Your task to perform on an android device: Search for hotels in Paris Image 0: 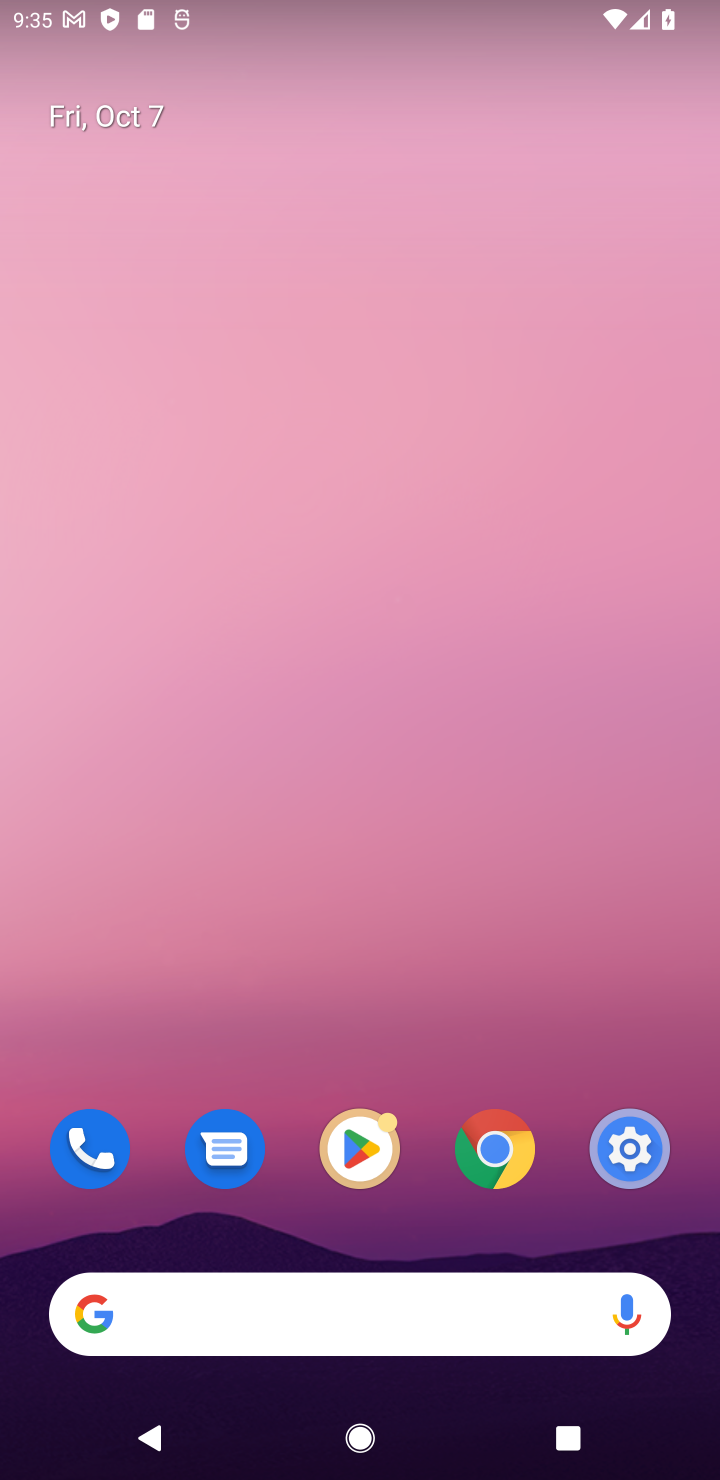
Step 0: click (387, 1349)
Your task to perform on an android device: Search for hotels in Paris Image 1: 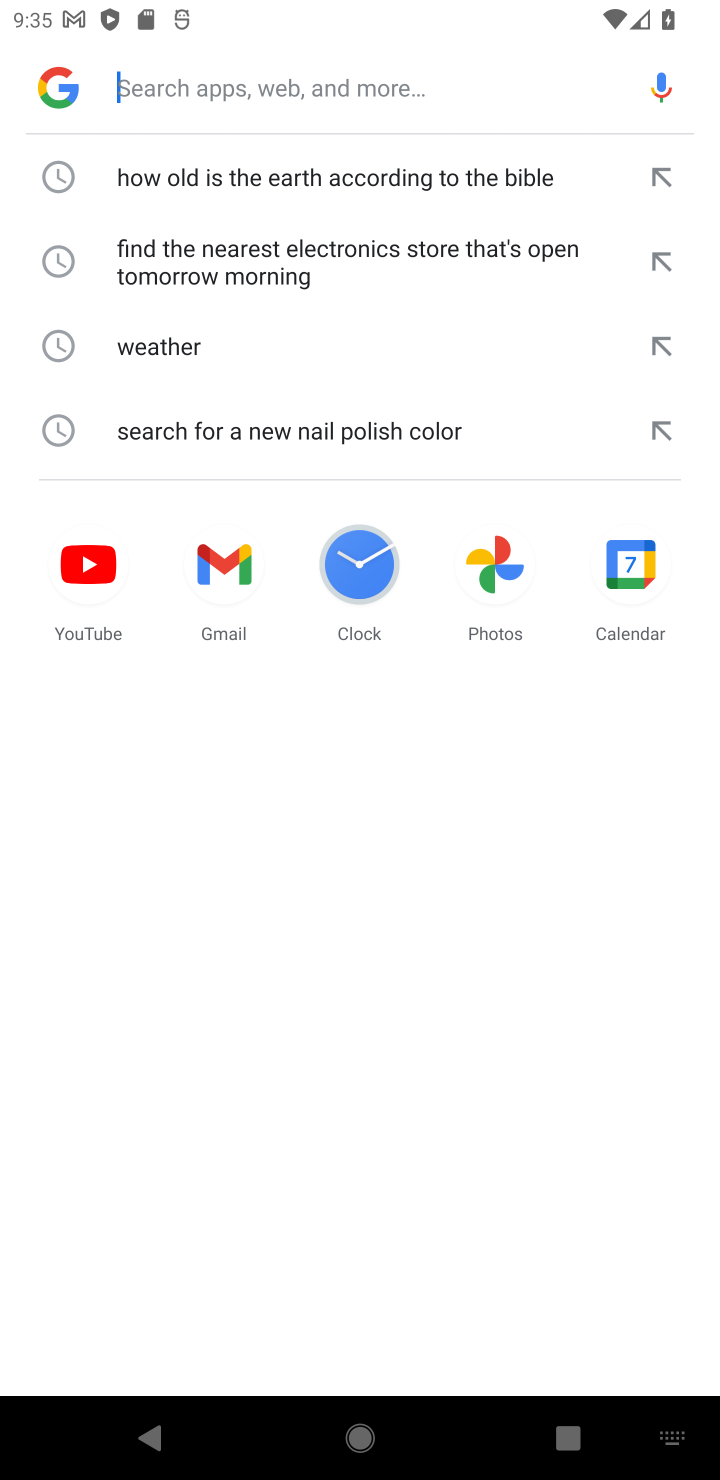
Step 1: type "Search for hotels in Paris"
Your task to perform on an android device: Search for hotels in Paris Image 2: 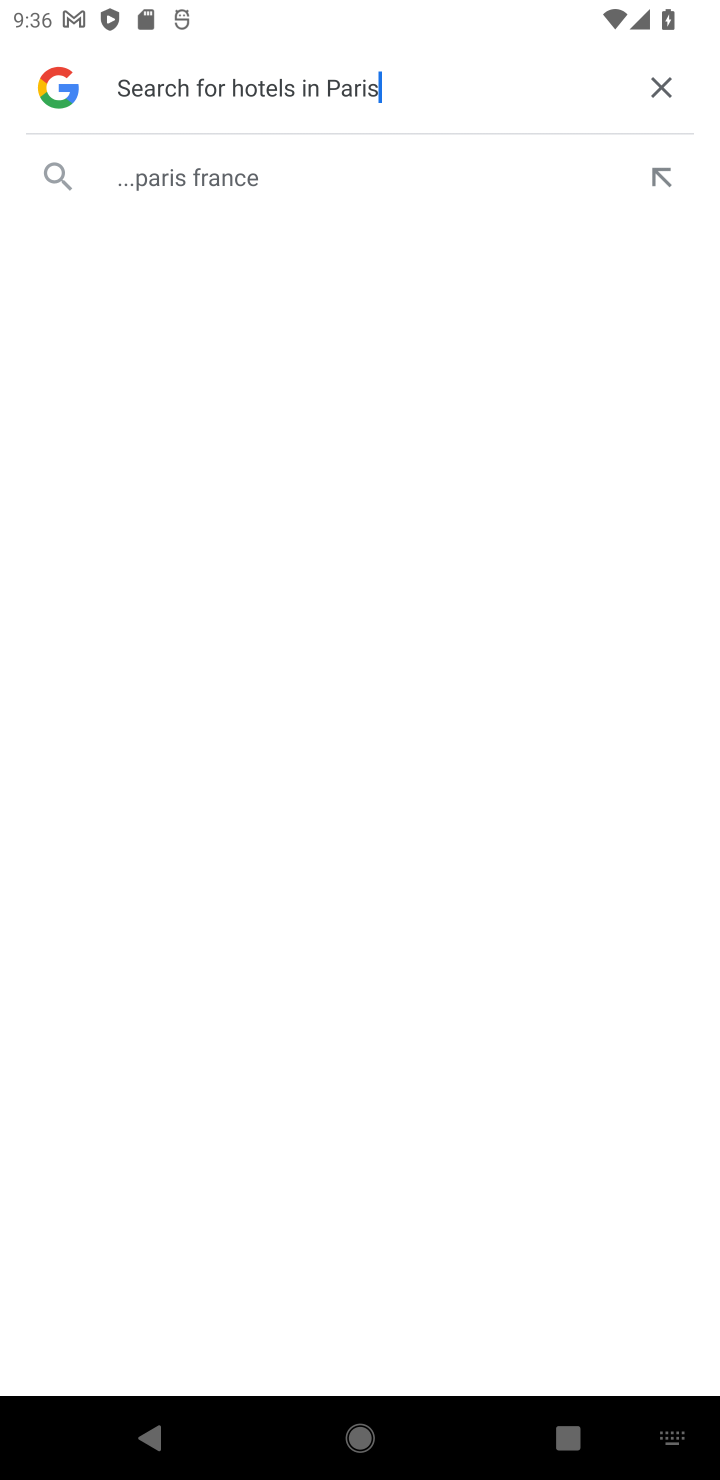
Step 2: press home button
Your task to perform on an android device: Search for hotels in Paris Image 3: 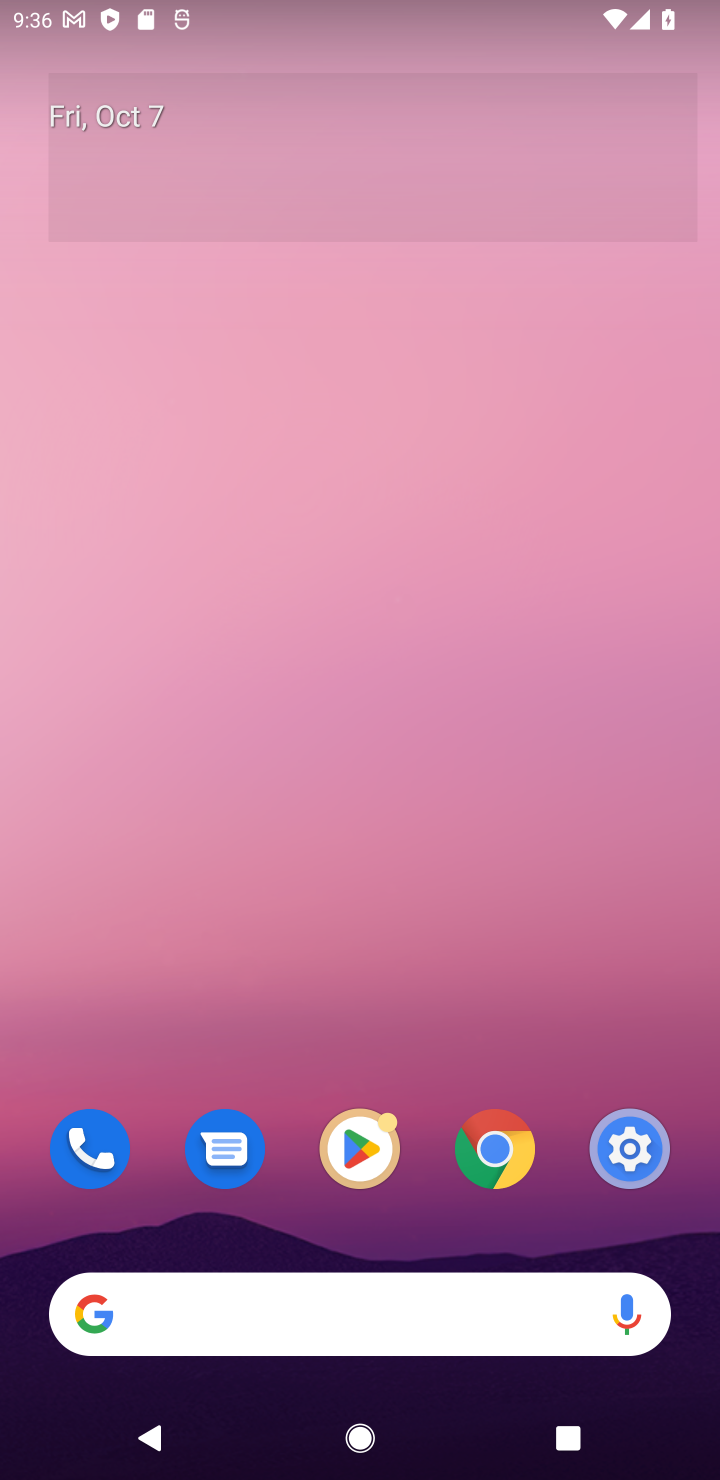
Step 3: click (491, 1202)
Your task to perform on an android device: Search for hotels in Paris Image 4: 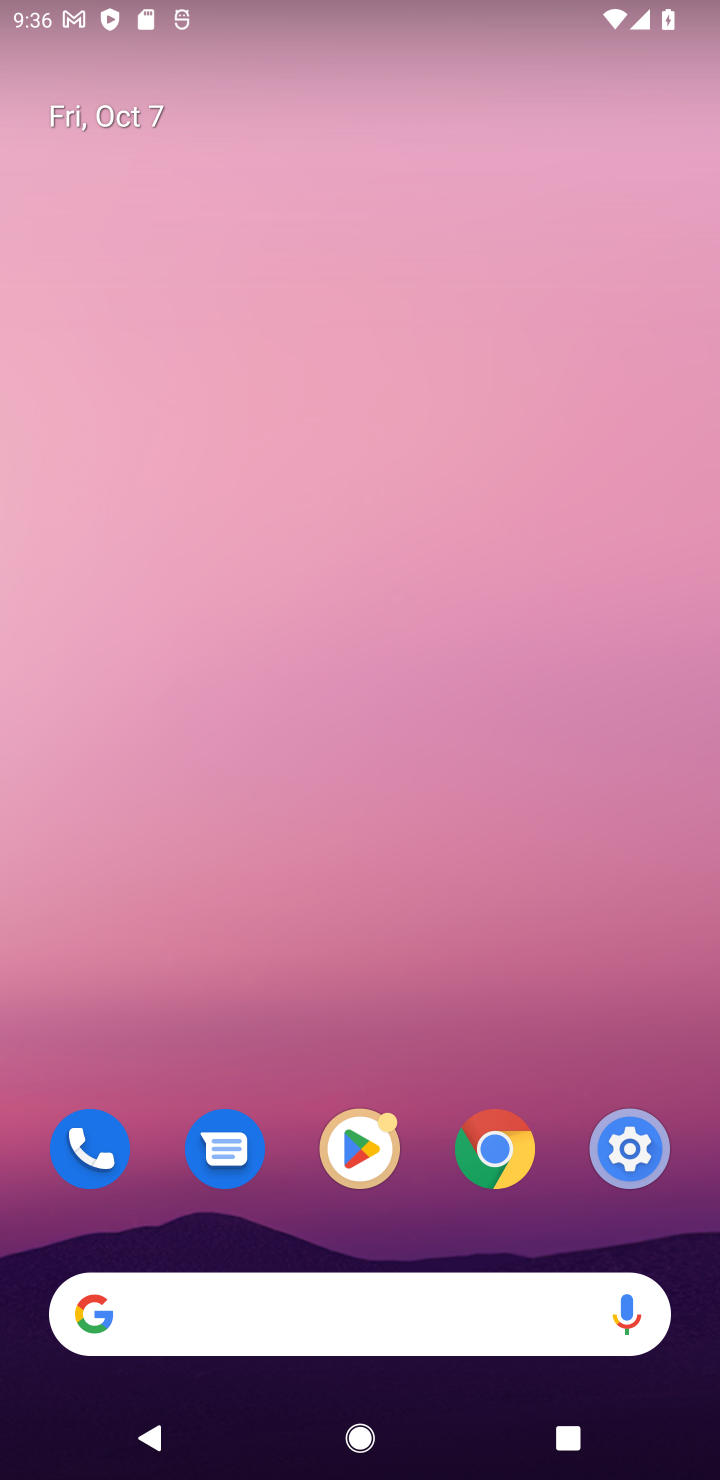
Step 4: task complete